Your task to perform on an android device: toggle javascript in the chrome app Image 0: 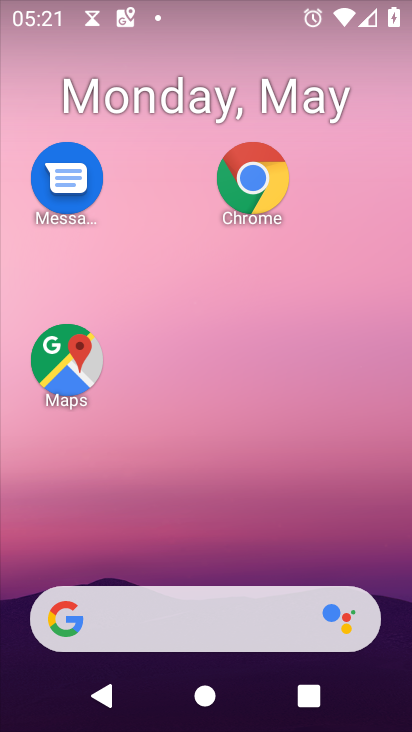
Step 0: drag from (203, 546) to (172, 162)
Your task to perform on an android device: toggle javascript in the chrome app Image 1: 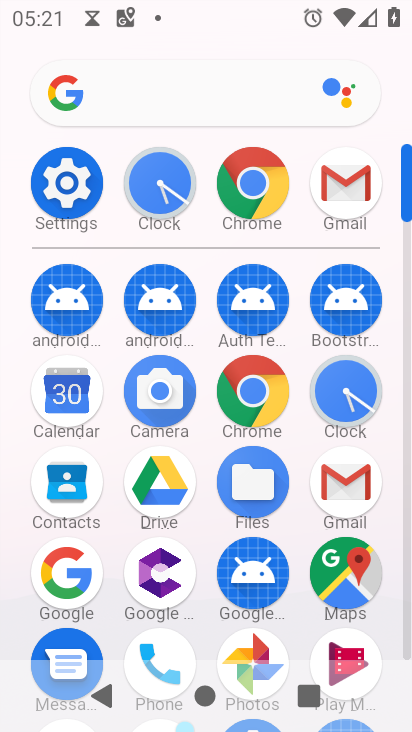
Step 1: click (69, 503)
Your task to perform on an android device: toggle javascript in the chrome app Image 2: 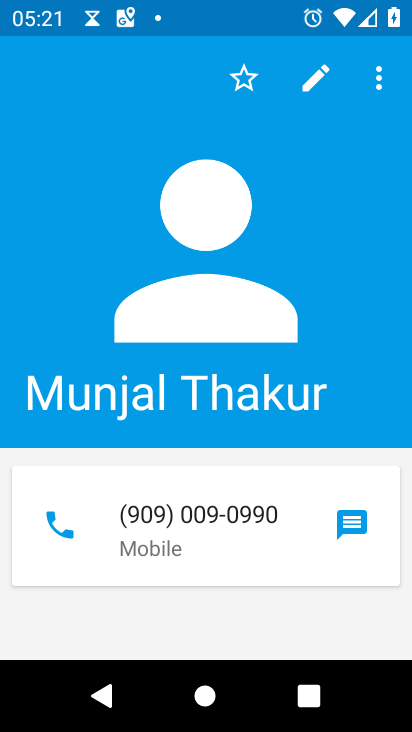
Step 2: press back button
Your task to perform on an android device: toggle javascript in the chrome app Image 3: 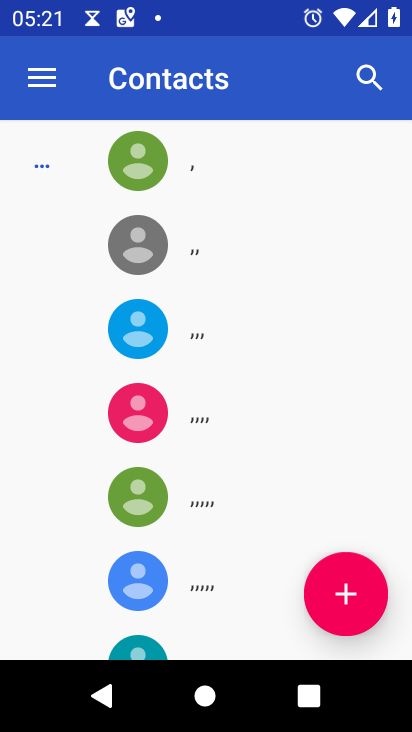
Step 3: click (324, 613)
Your task to perform on an android device: toggle javascript in the chrome app Image 4: 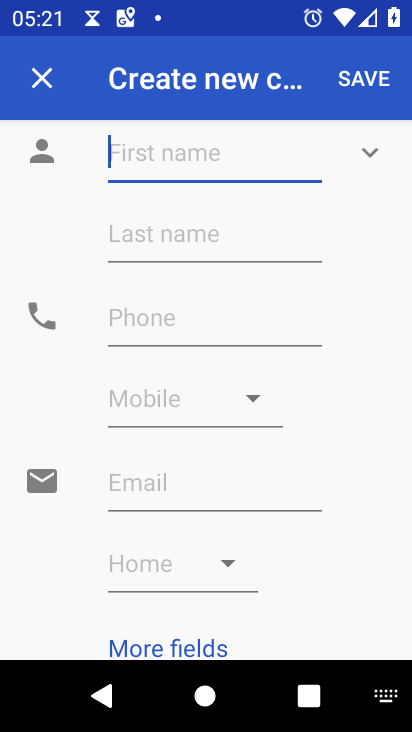
Step 4: type "Guru"
Your task to perform on an android device: toggle javascript in the chrome app Image 5: 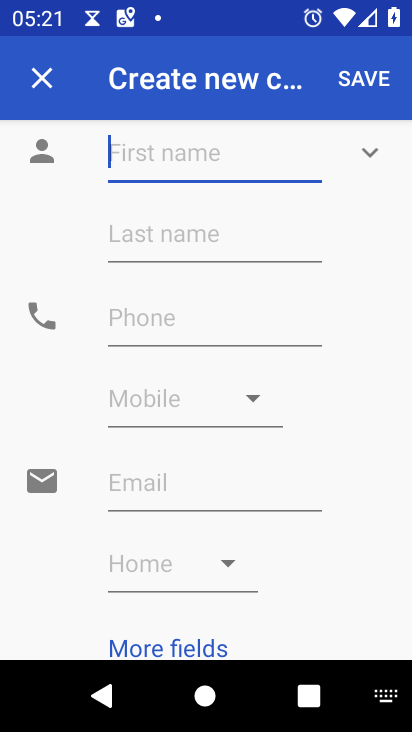
Step 5: click (199, 243)
Your task to perform on an android device: toggle javascript in the chrome app Image 6: 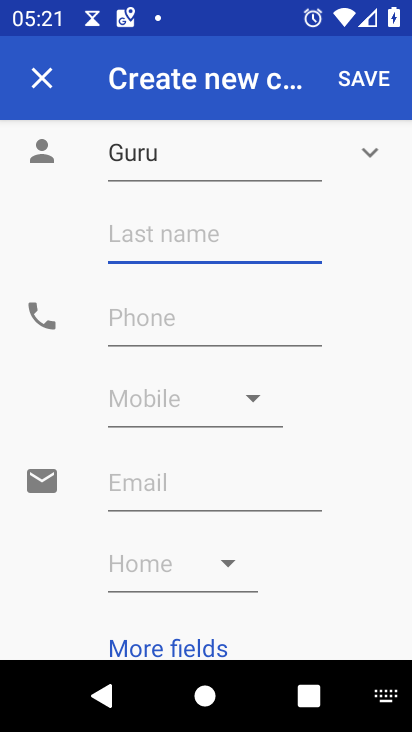
Step 6: type "Randhawa"
Your task to perform on an android device: toggle javascript in the chrome app Image 7: 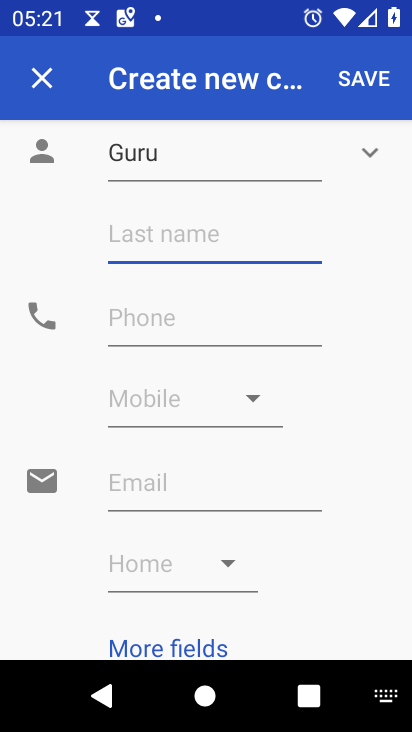
Step 7: click (118, 334)
Your task to perform on an android device: toggle javascript in the chrome app Image 8: 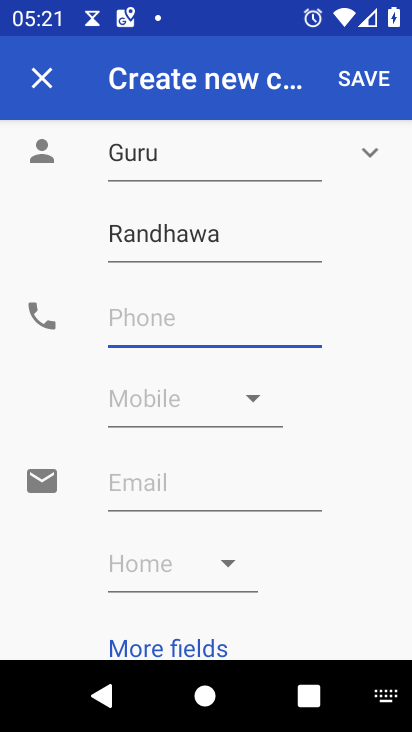
Step 8: type "7878878778"
Your task to perform on an android device: toggle javascript in the chrome app Image 9: 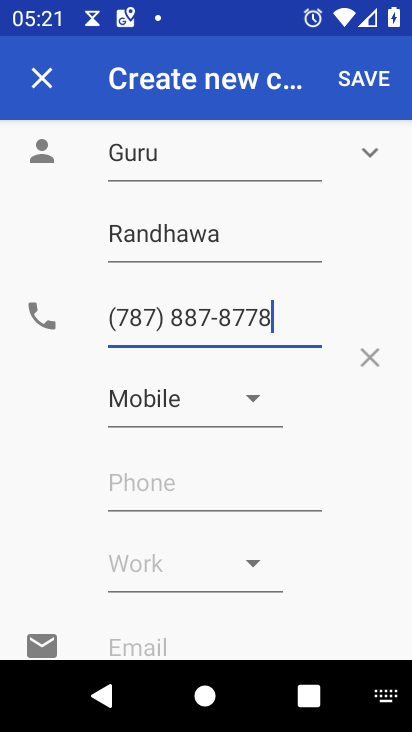
Step 9: click (376, 79)
Your task to perform on an android device: toggle javascript in the chrome app Image 10: 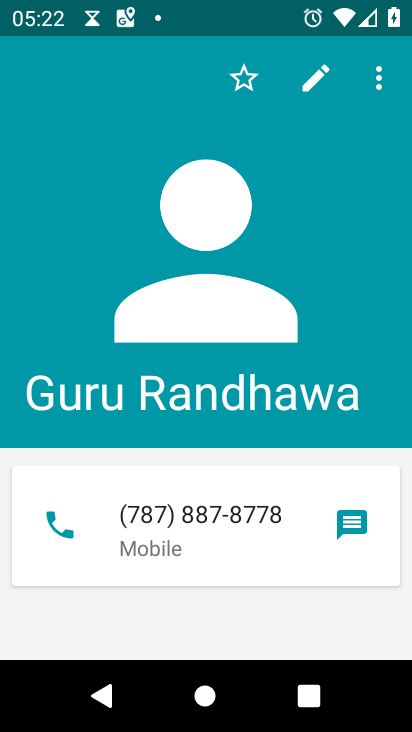
Step 10: task complete